Your task to perform on an android device: Open Google Chrome Image 0: 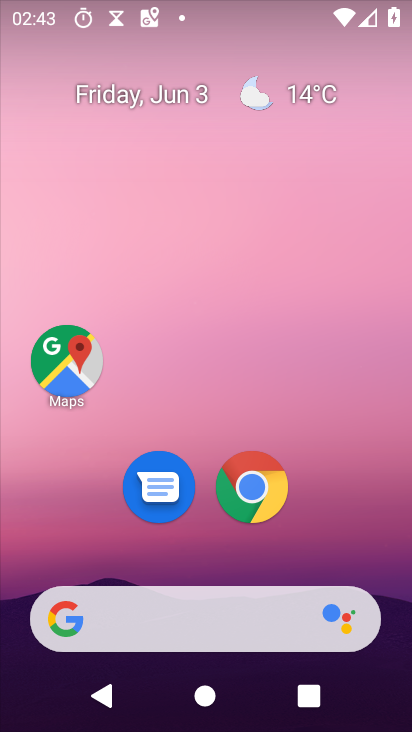
Step 0: click (261, 489)
Your task to perform on an android device: Open Google Chrome Image 1: 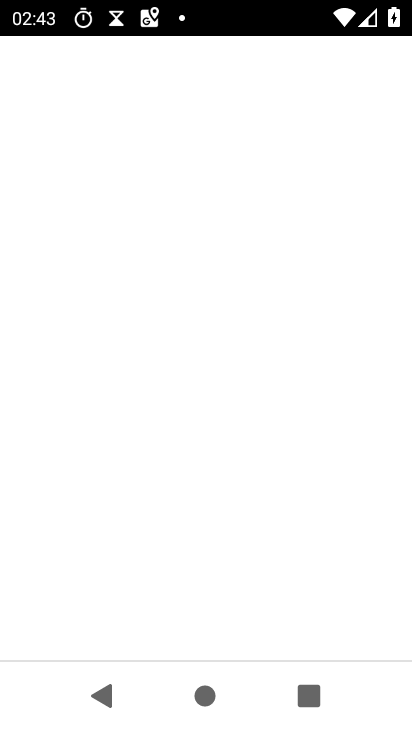
Step 1: task complete